Your task to perform on an android device: check storage Image 0: 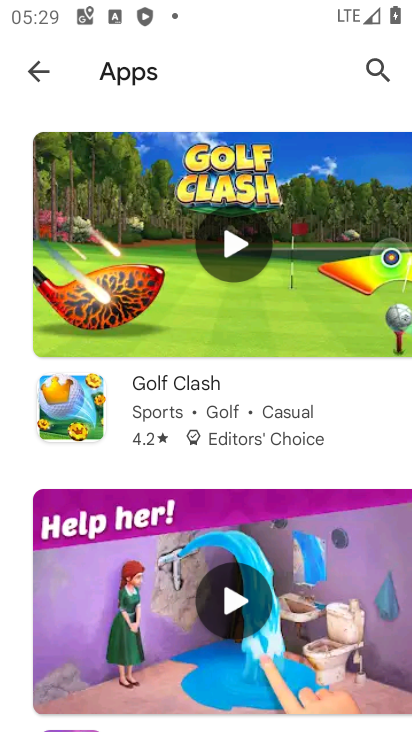
Step 0: press home button
Your task to perform on an android device: check storage Image 1: 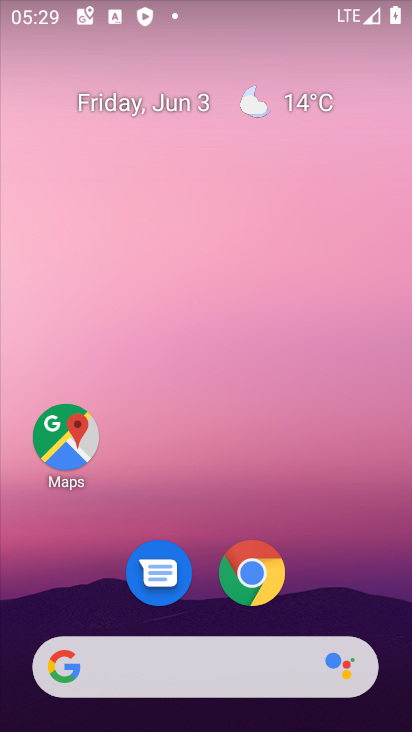
Step 1: drag from (359, 599) to (314, 71)
Your task to perform on an android device: check storage Image 2: 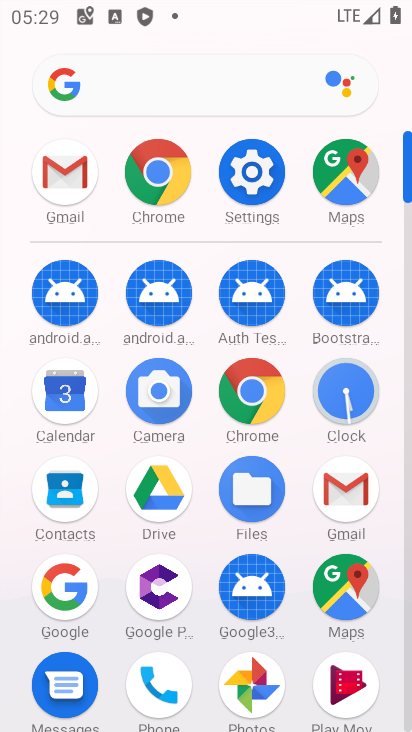
Step 2: click (266, 188)
Your task to perform on an android device: check storage Image 3: 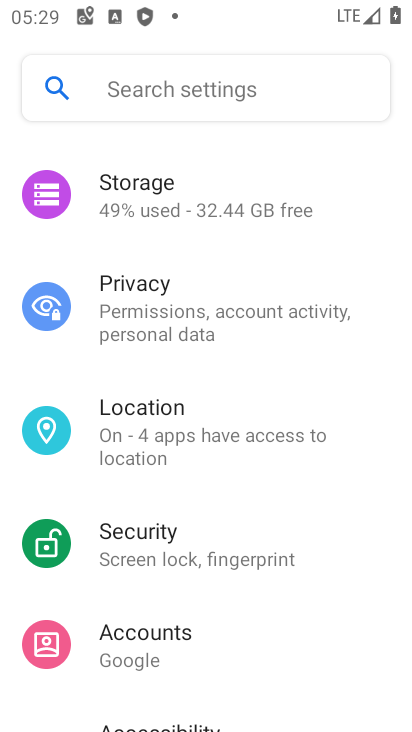
Step 3: click (242, 199)
Your task to perform on an android device: check storage Image 4: 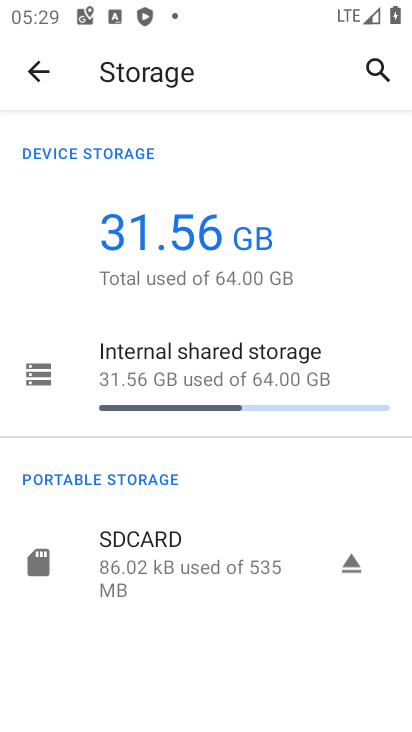
Step 4: click (139, 408)
Your task to perform on an android device: check storage Image 5: 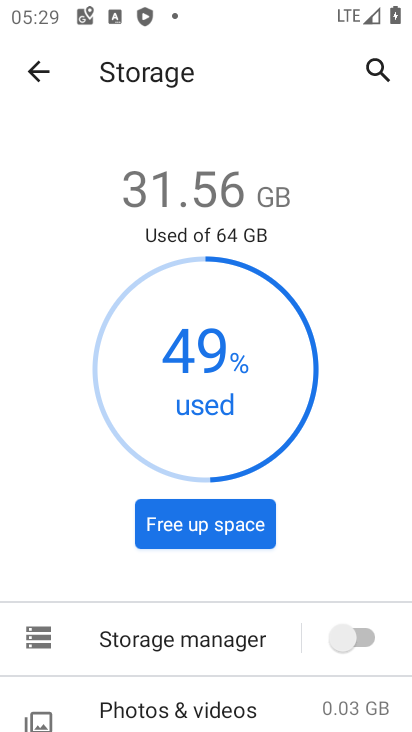
Step 5: task complete